Your task to perform on an android device: Open settings on Google Maps Image 0: 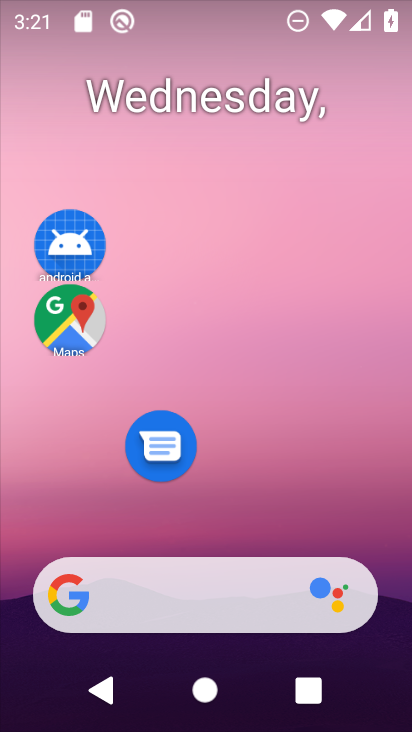
Step 0: drag from (353, 500) to (334, 123)
Your task to perform on an android device: Open settings on Google Maps Image 1: 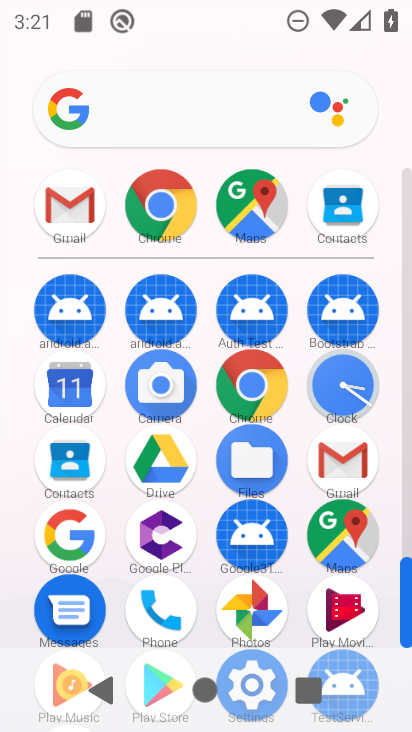
Step 1: click (244, 227)
Your task to perform on an android device: Open settings on Google Maps Image 2: 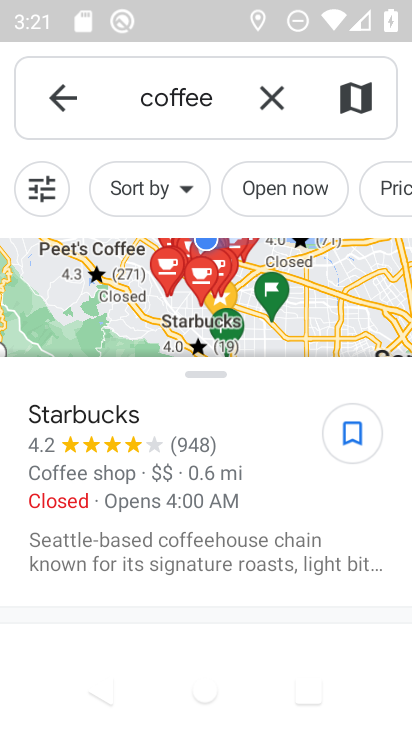
Step 2: click (61, 102)
Your task to perform on an android device: Open settings on Google Maps Image 3: 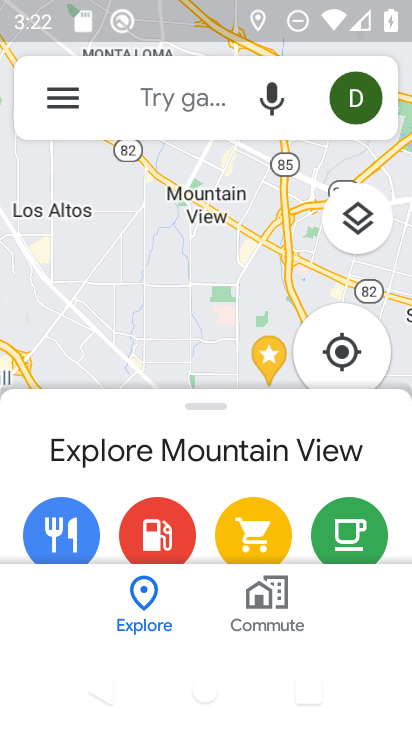
Step 3: click (61, 102)
Your task to perform on an android device: Open settings on Google Maps Image 4: 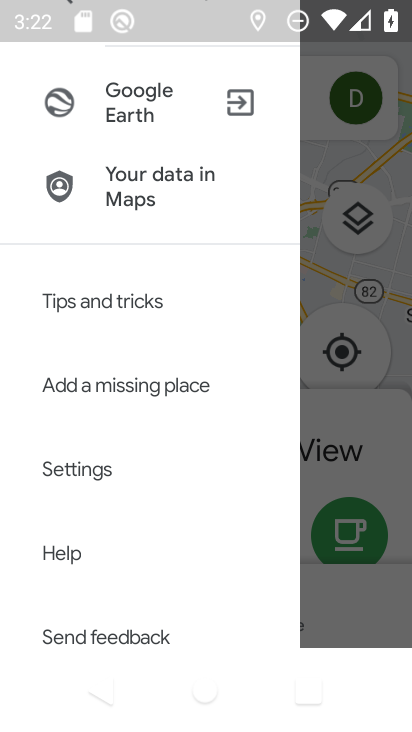
Step 4: click (65, 426)
Your task to perform on an android device: Open settings on Google Maps Image 5: 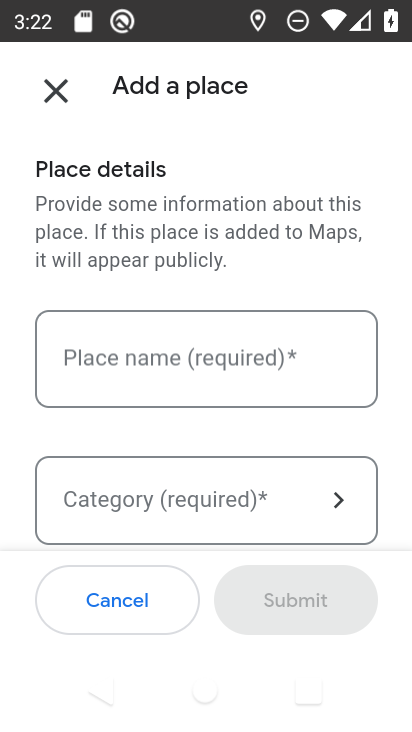
Step 5: task complete